Your task to perform on an android device: Open Youtube and go to the subscriptions tab Image 0: 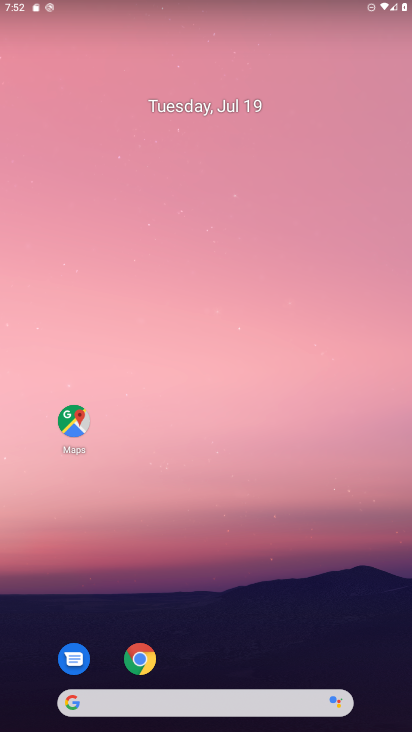
Step 0: drag from (338, 555) to (322, 236)
Your task to perform on an android device: Open Youtube and go to the subscriptions tab Image 1: 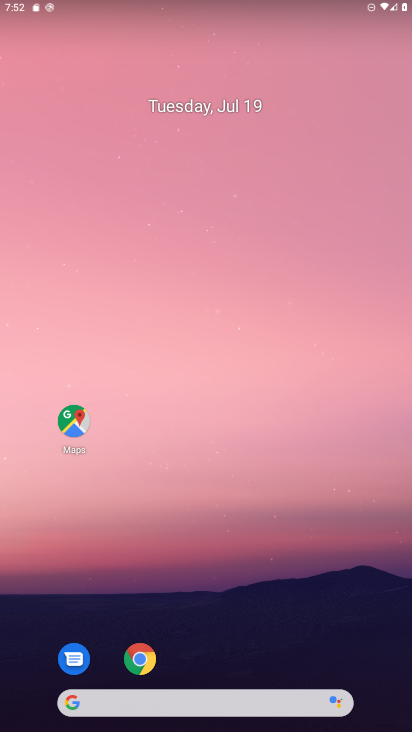
Step 1: drag from (218, 644) to (277, 114)
Your task to perform on an android device: Open Youtube and go to the subscriptions tab Image 2: 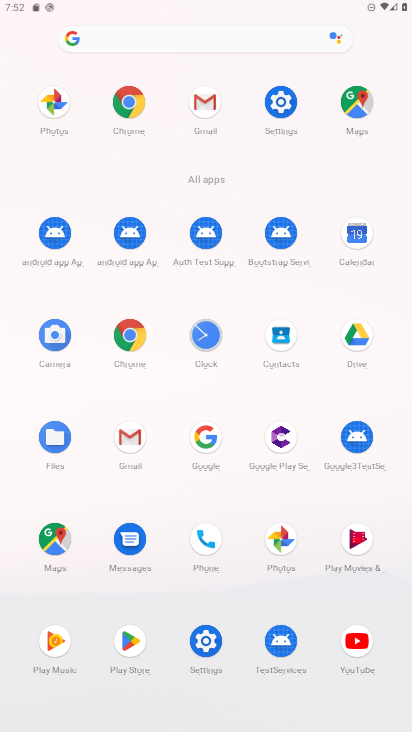
Step 2: click (361, 634)
Your task to perform on an android device: Open Youtube and go to the subscriptions tab Image 3: 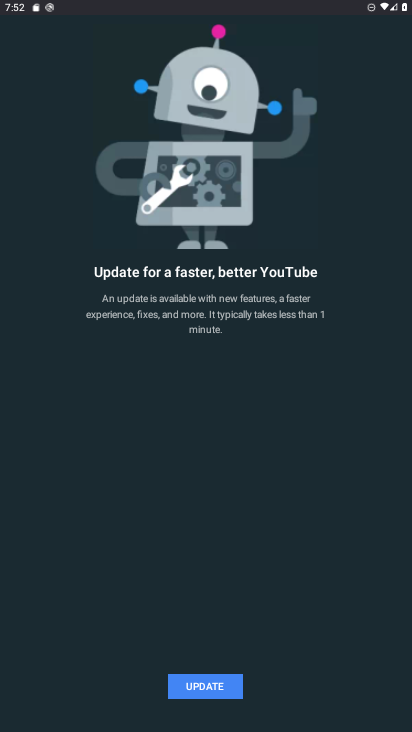
Step 3: task complete